Your task to perform on an android device: Clear the shopping cart on target. Search for alienware aurora on target, select the first entry, add it to the cart, then select checkout. Image 0: 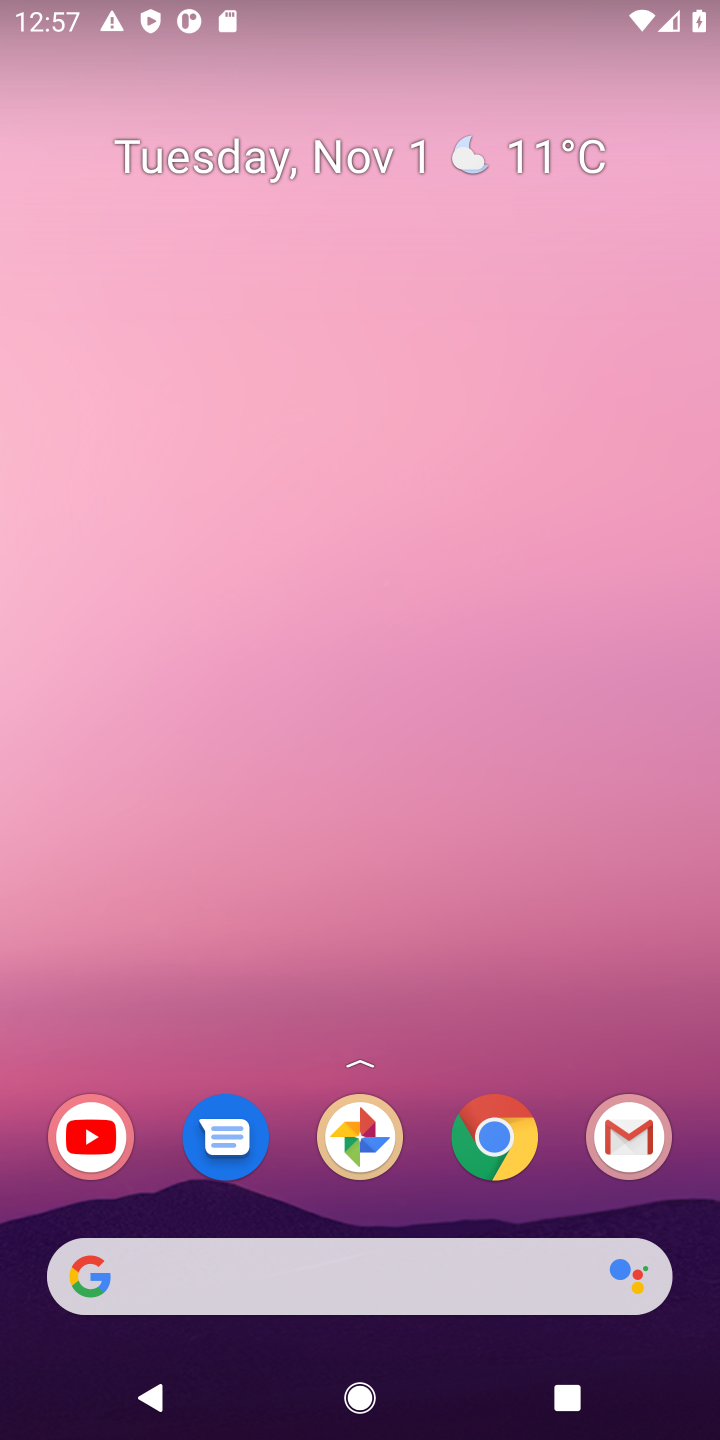
Step 0: click (490, 1127)
Your task to perform on an android device: Clear the shopping cart on target. Search for alienware aurora on target, select the first entry, add it to the cart, then select checkout. Image 1: 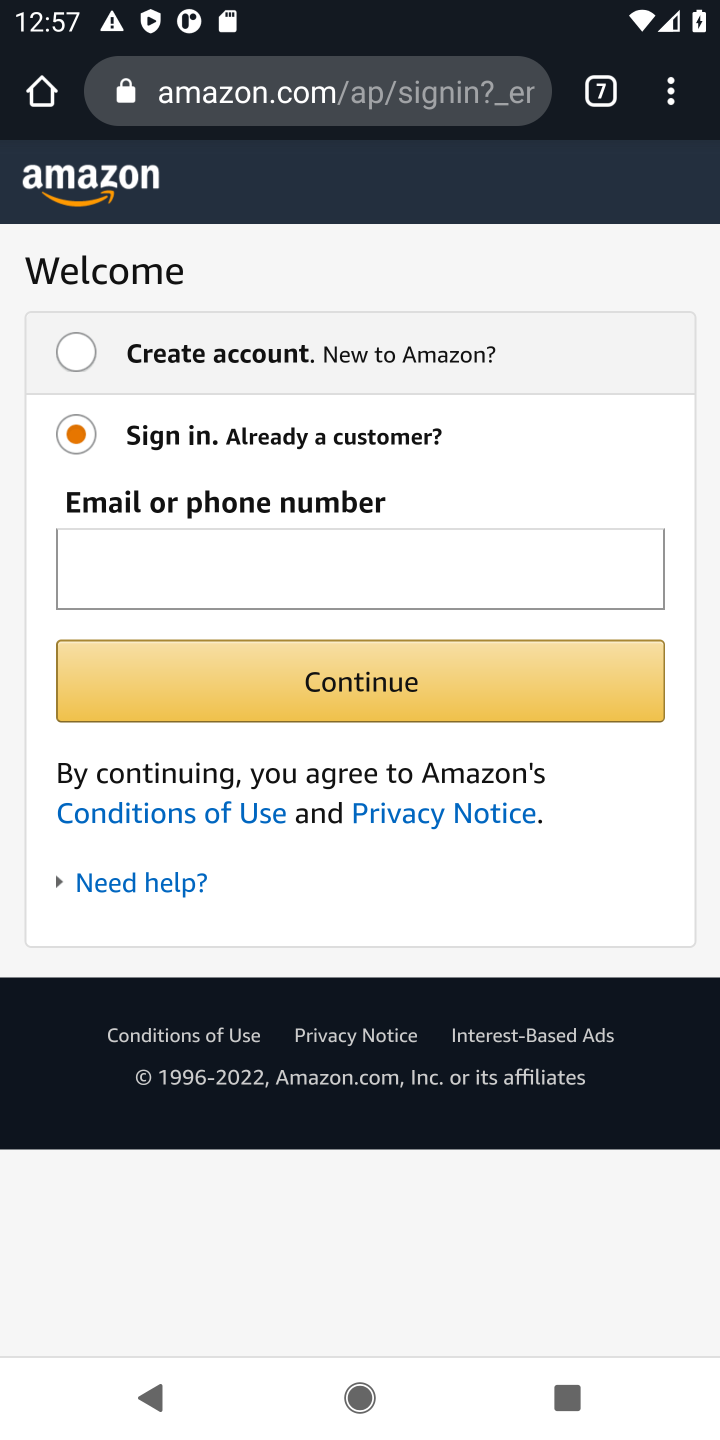
Step 1: click (600, 95)
Your task to perform on an android device: Clear the shopping cart on target. Search for alienware aurora on target, select the first entry, add it to the cart, then select checkout. Image 2: 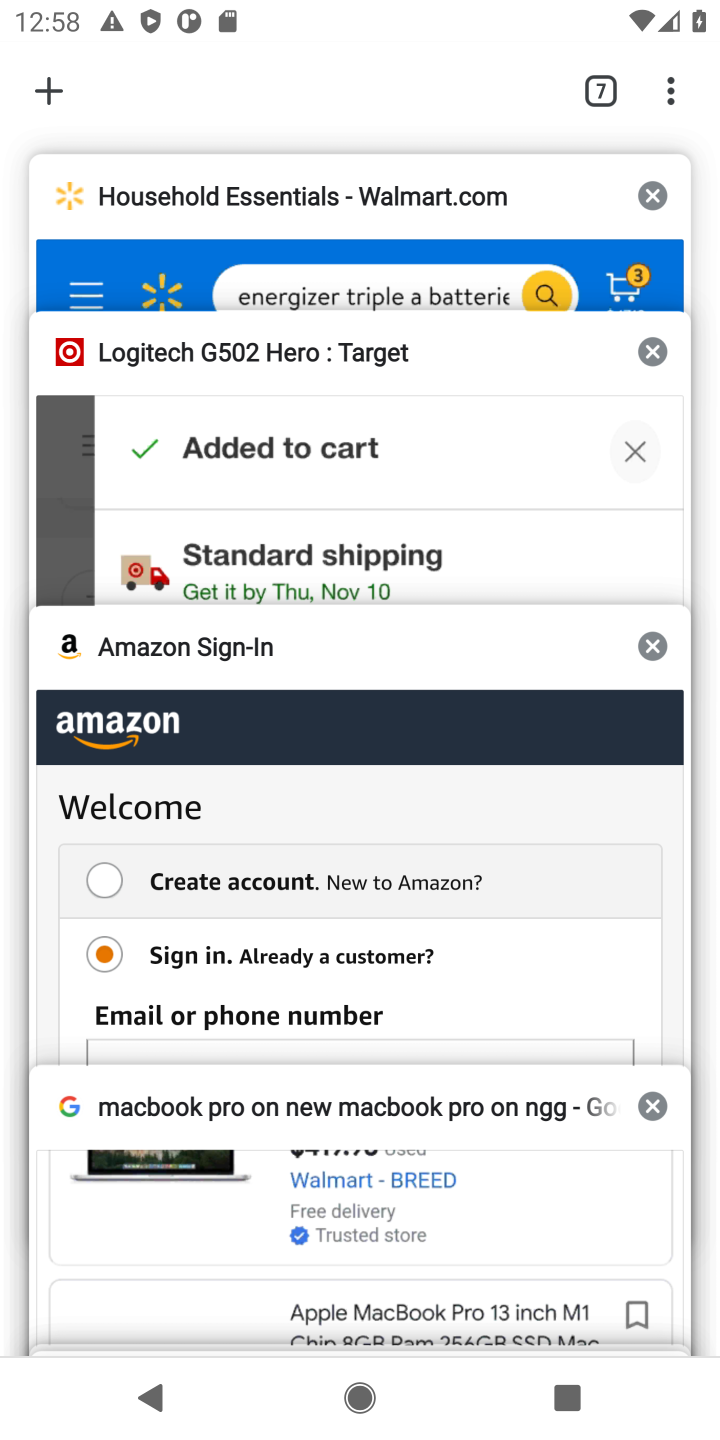
Step 2: click (298, 418)
Your task to perform on an android device: Clear the shopping cart on target. Search for alienware aurora on target, select the first entry, add it to the cart, then select checkout. Image 3: 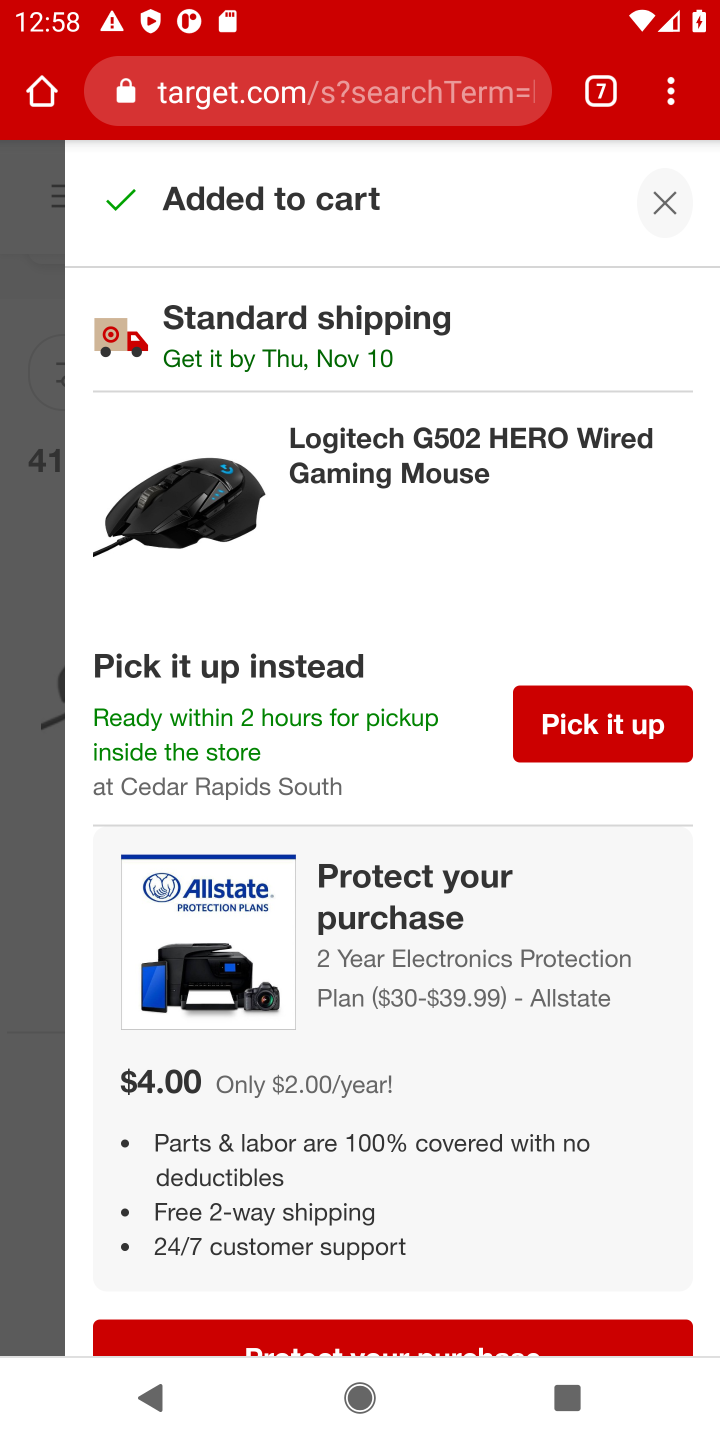
Step 3: click (665, 200)
Your task to perform on an android device: Clear the shopping cart on target. Search for alienware aurora on target, select the first entry, add it to the cart, then select checkout. Image 4: 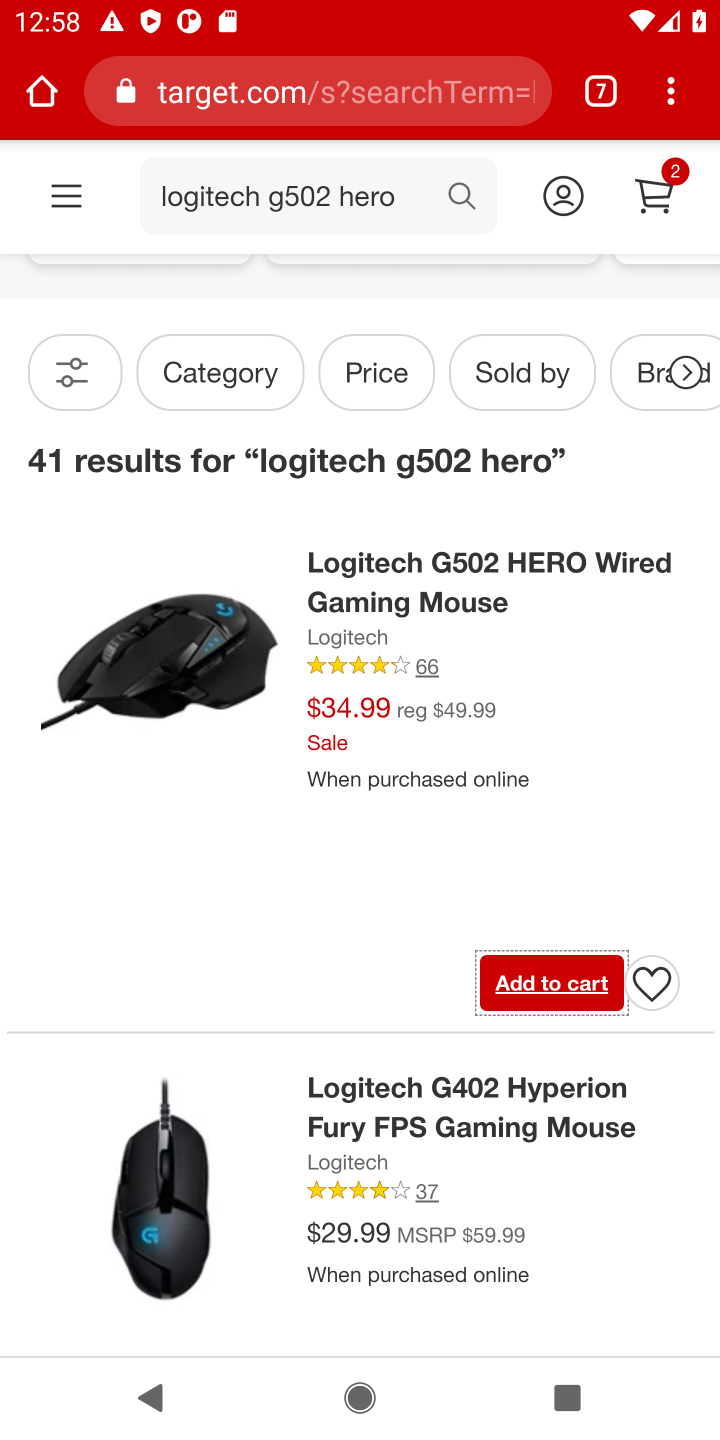
Step 4: click (456, 202)
Your task to perform on an android device: Clear the shopping cart on target. Search for alienware aurora on target, select the first entry, add it to the cart, then select checkout. Image 5: 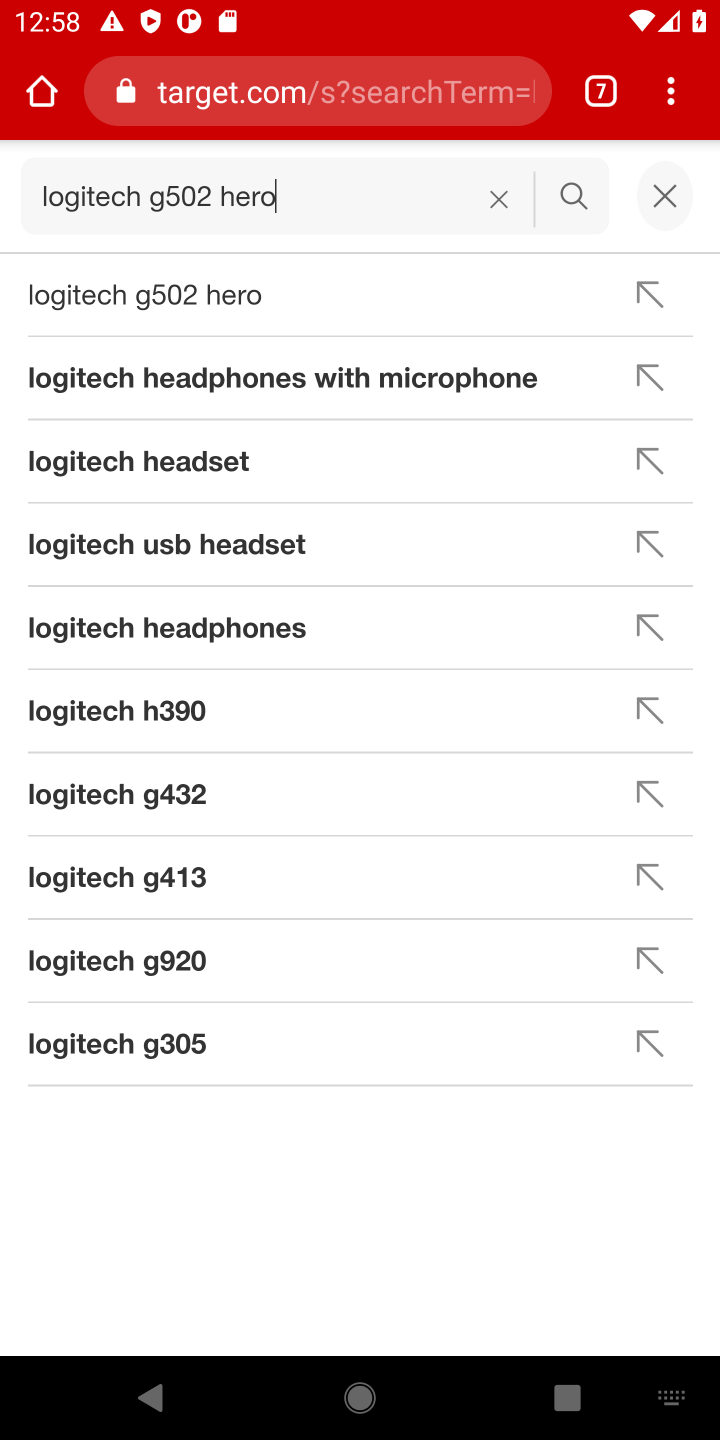
Step 5: click (492, 195)
Your task to perform on an android device: Clear the shopping cart on target. Search for alienware aurora on target, select the first entry, add it to the cart, then select checkout. Image 6: 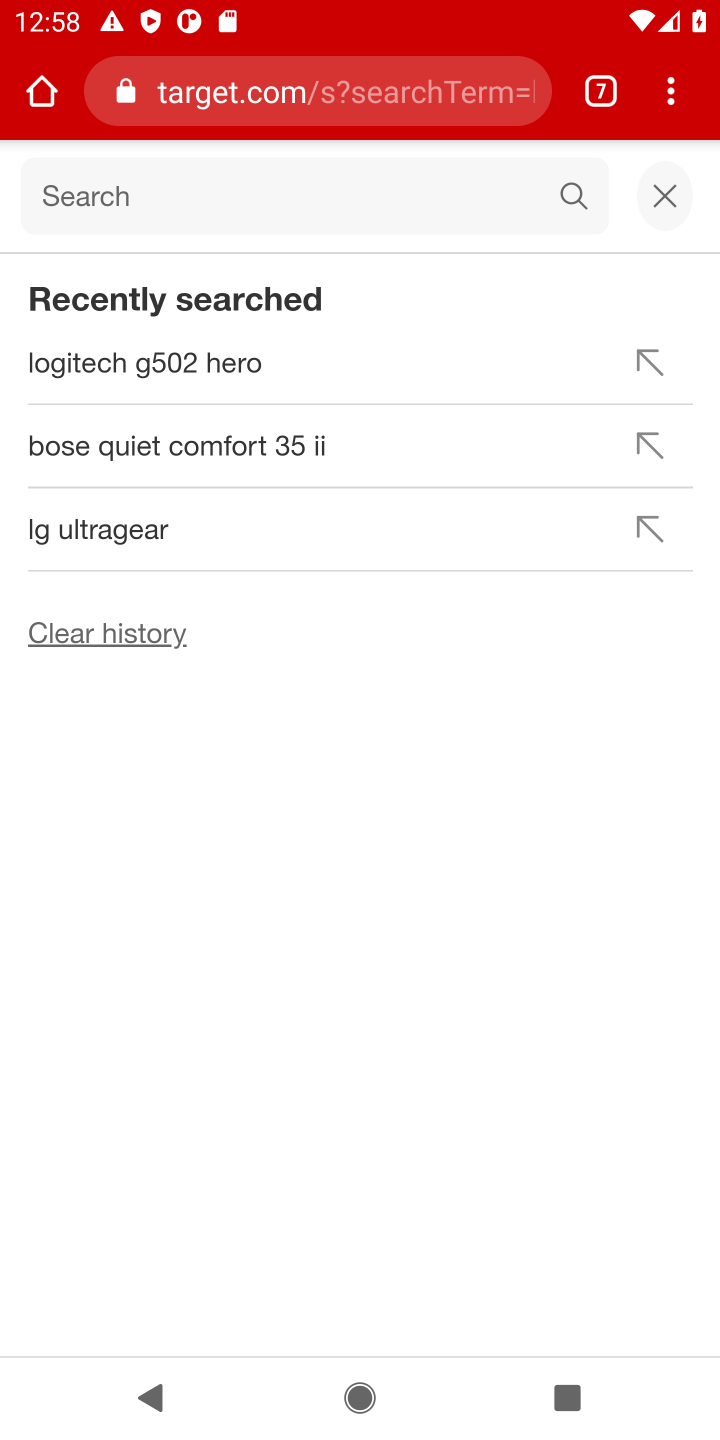
Step 6: type "alienware aurora"
Your task to perform on an android device: Clear the shopping cart on target. Search for alienware aurora on target, select the first entry, add it to the cart, then select checkout. Image 7: 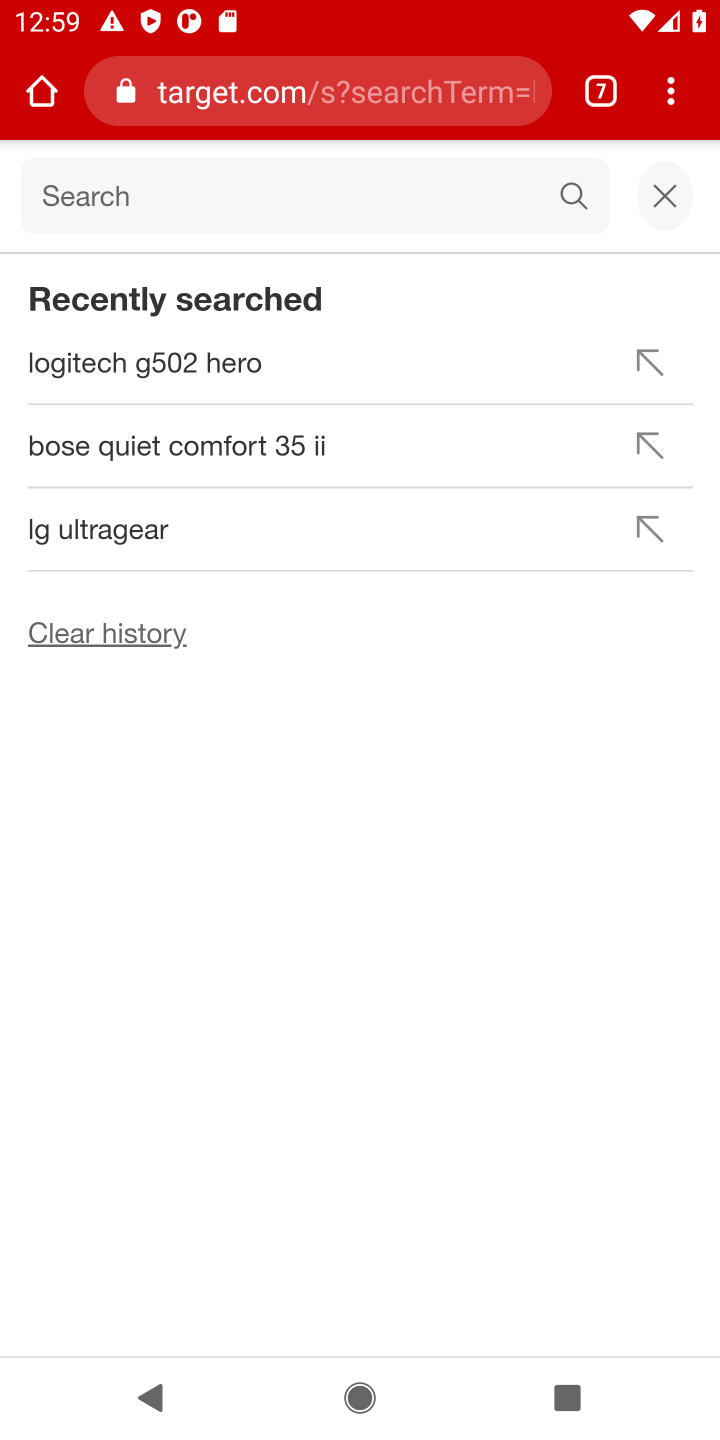
Step 7: click (485, 196)
Your task to perform on an android device: Clear the shopping cart on target. Search for alienware aurora on target, select the first entry, add it to the cart, then select checkout. Image 8: 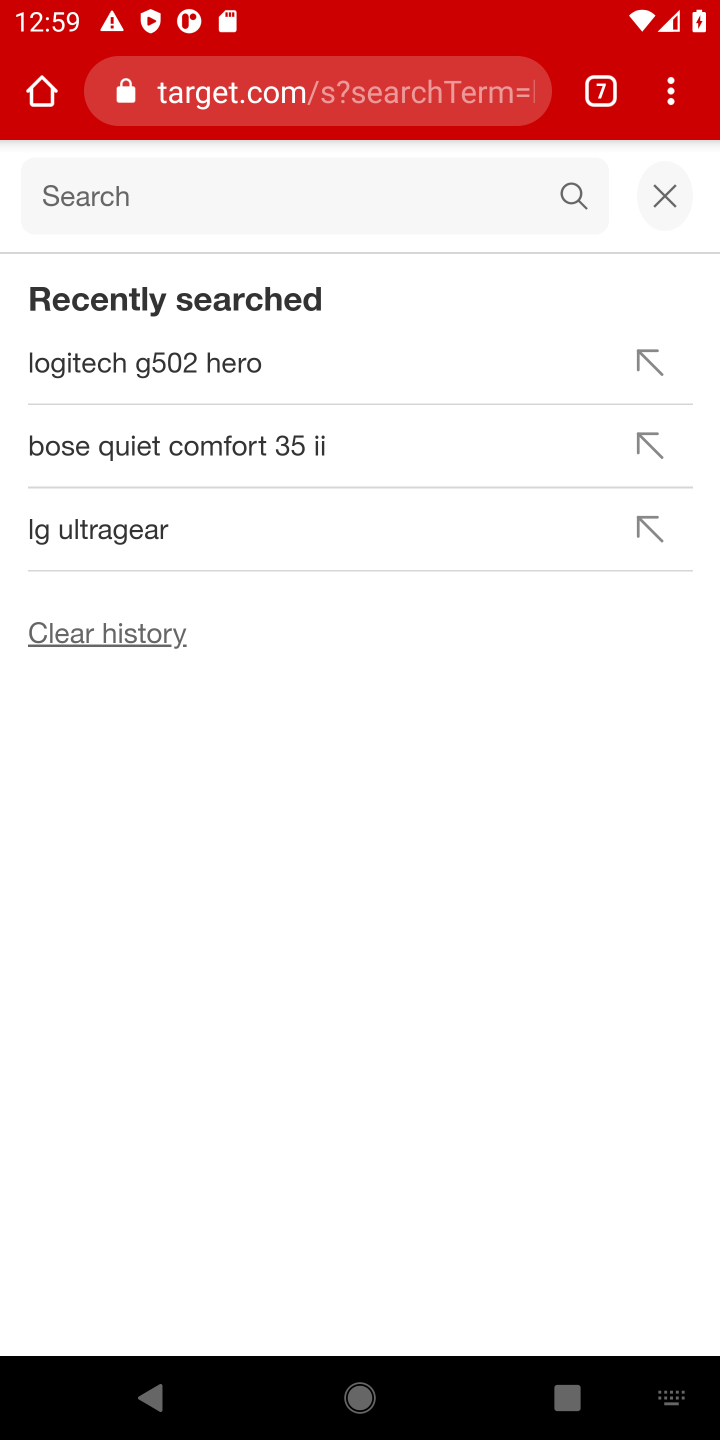
Step 8: click (323, 213)
Your task to perform on an android device: Clear the shopping cart on target. Search for alienware aurora on target, select the first entry, add it to the cart, then select checkout. Image 9: 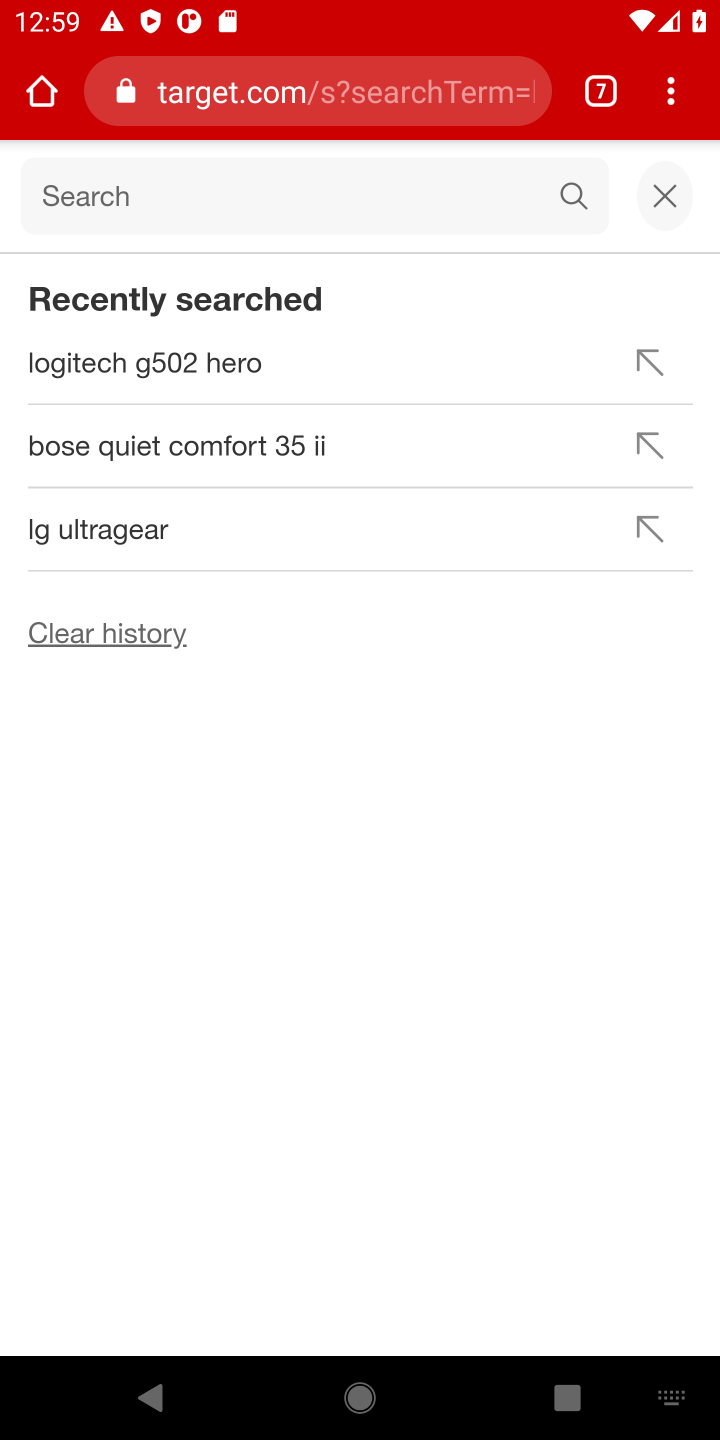
Step 9: type "alienware aurora"
Your task to perform on an android device: Clear the shopping cart on target. Search for alienware aurora on target, select the first entry, add it to the cart, then select checkout. Image 10: 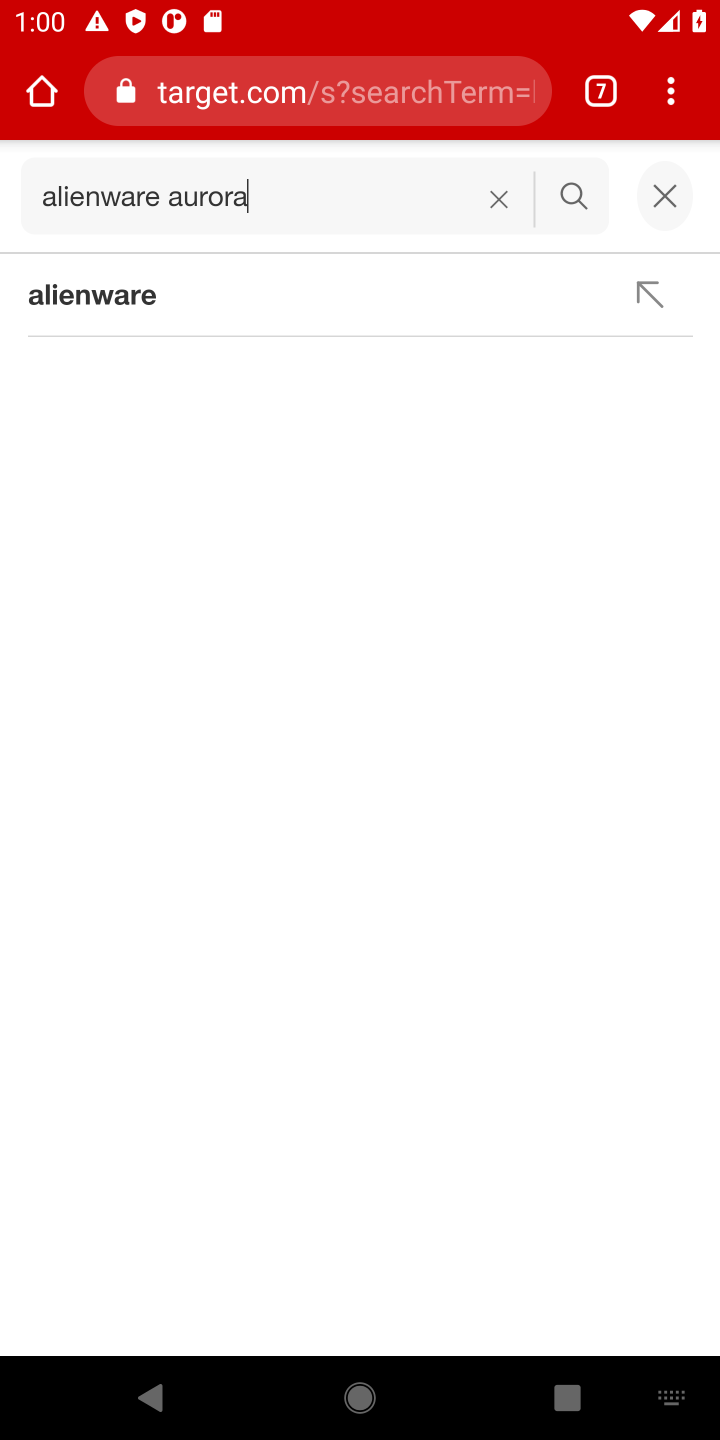
Step 10: click (77, 296)
Your task to perform on an android device: Clear the shopping cart on target. Search for alienware aurora on target, select the first entry, add it to the cart, then select checkout. Image 11: 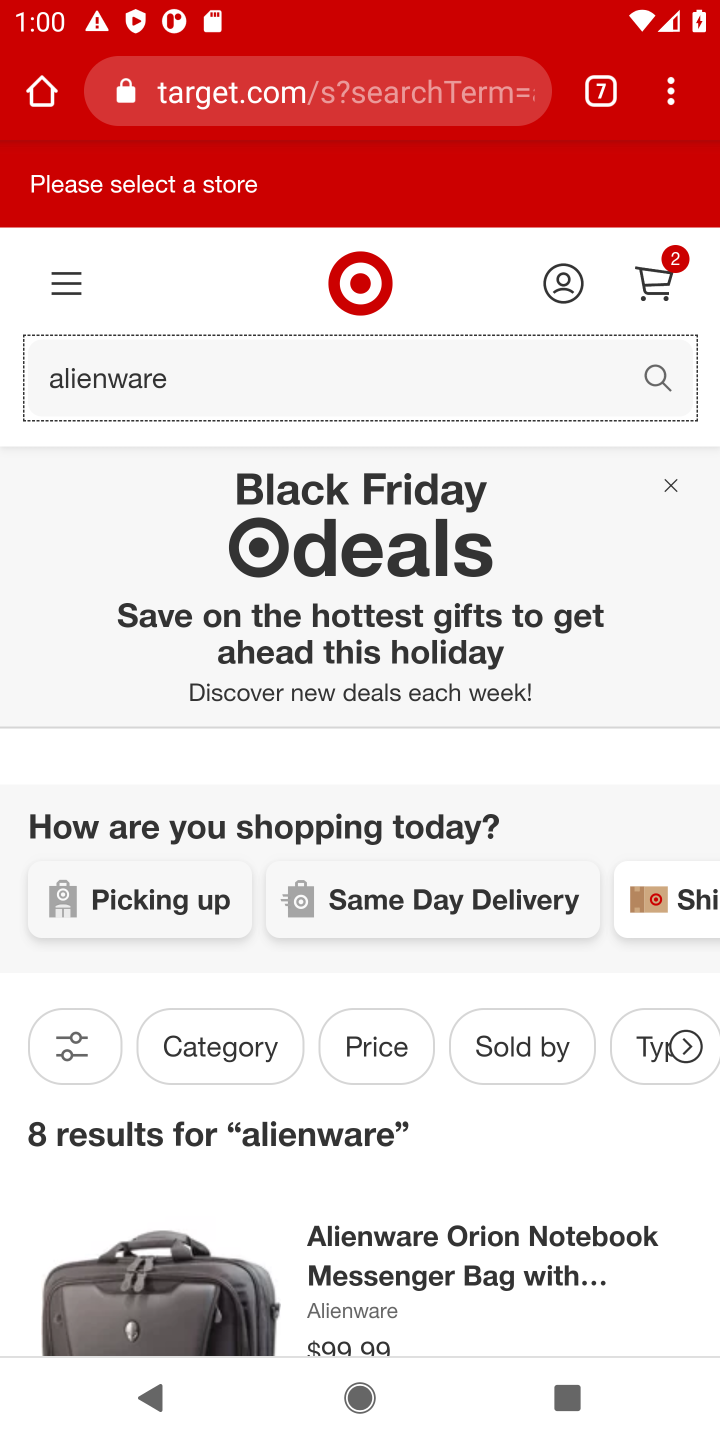
Step 11: click (495, 1256)
Your task to perform on an android device: Clear the shopping cart on target. Search for alienware aurora on target, select the first entry, add it to the cart, then select checkout. Image 12: 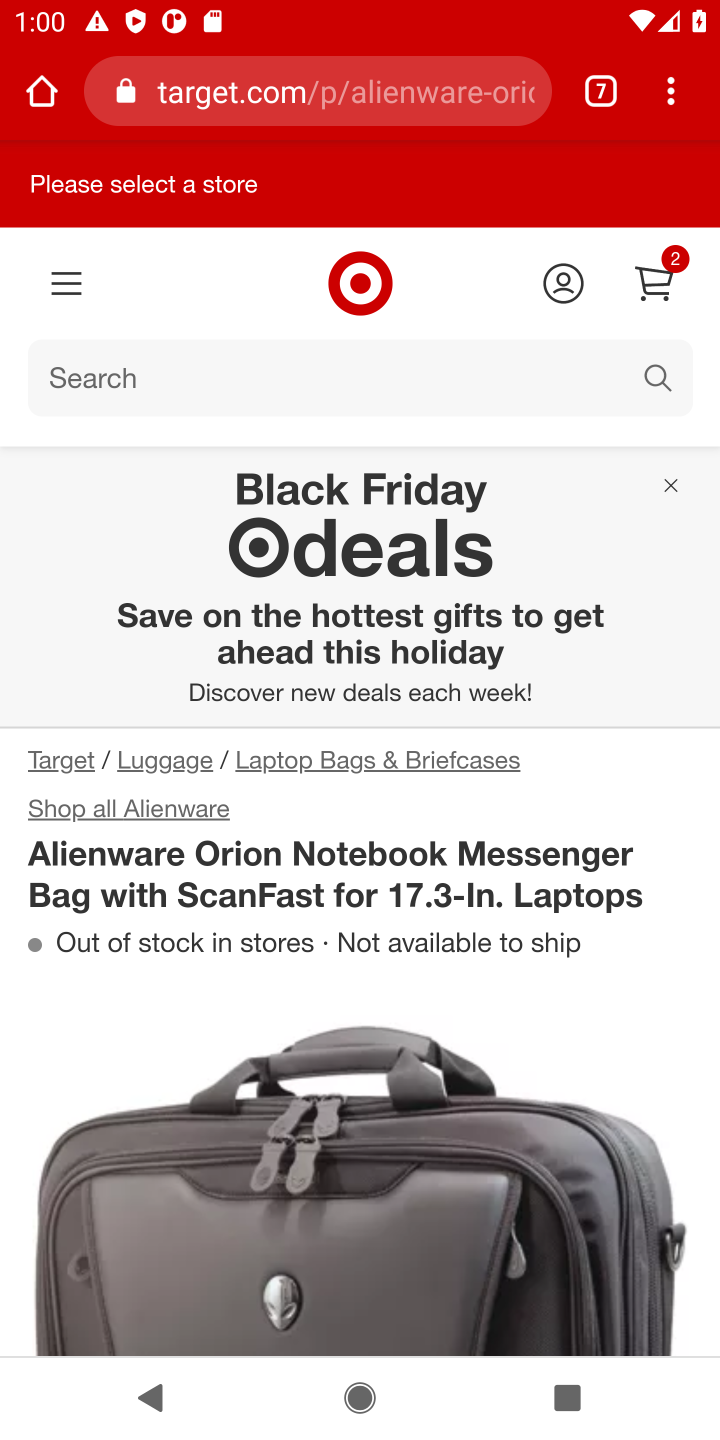
Step 12: drag from (535, 1160) to (503, 279)
Your task to perform on an android device: Clear the shopping cart on target. Search for alienware aurora on target, select the first entry, add it to the cart, then select checkout. Image 13: 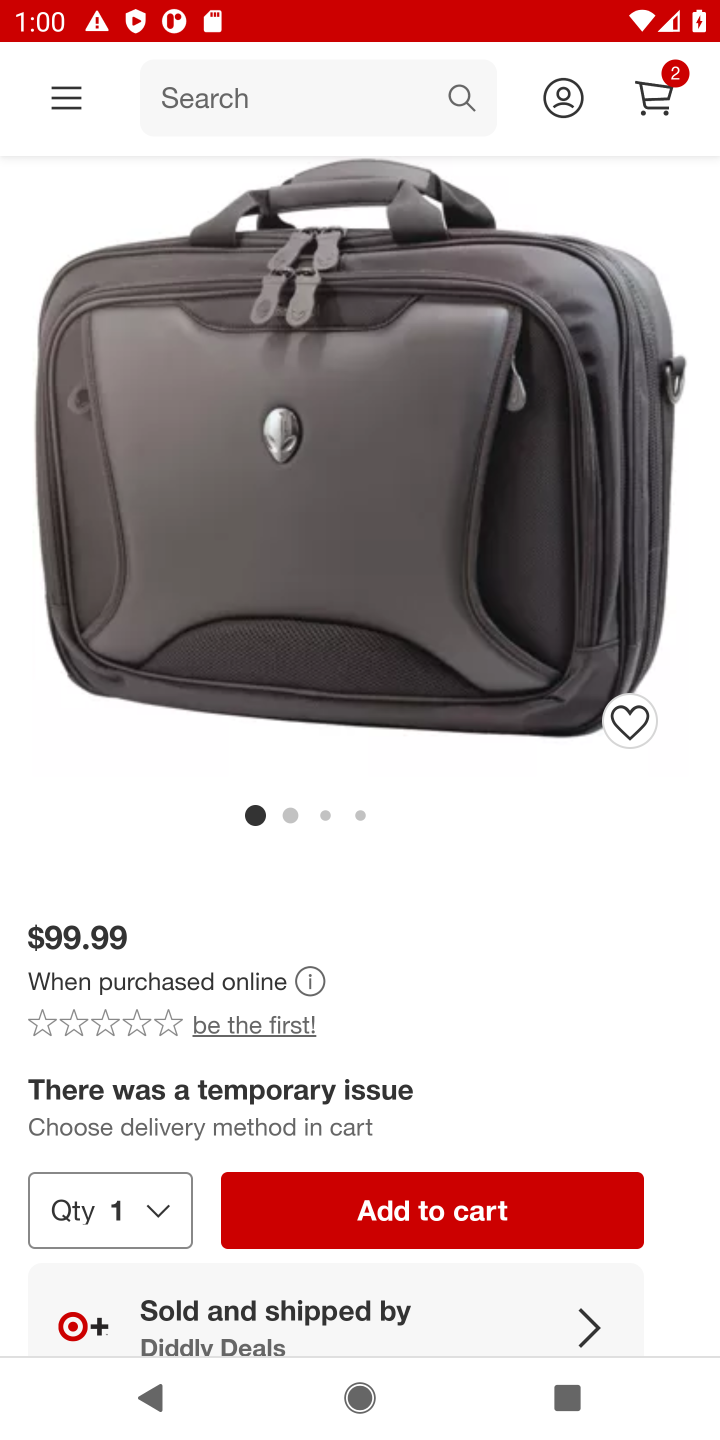
Step 13: drag from (372, 1275) to (528, 456)
Your task to perform on an android device: Clear the shopping cart on target. Search for alienware aurora on target, select the first entry, add it to the cart, then select checkout. Image 14: 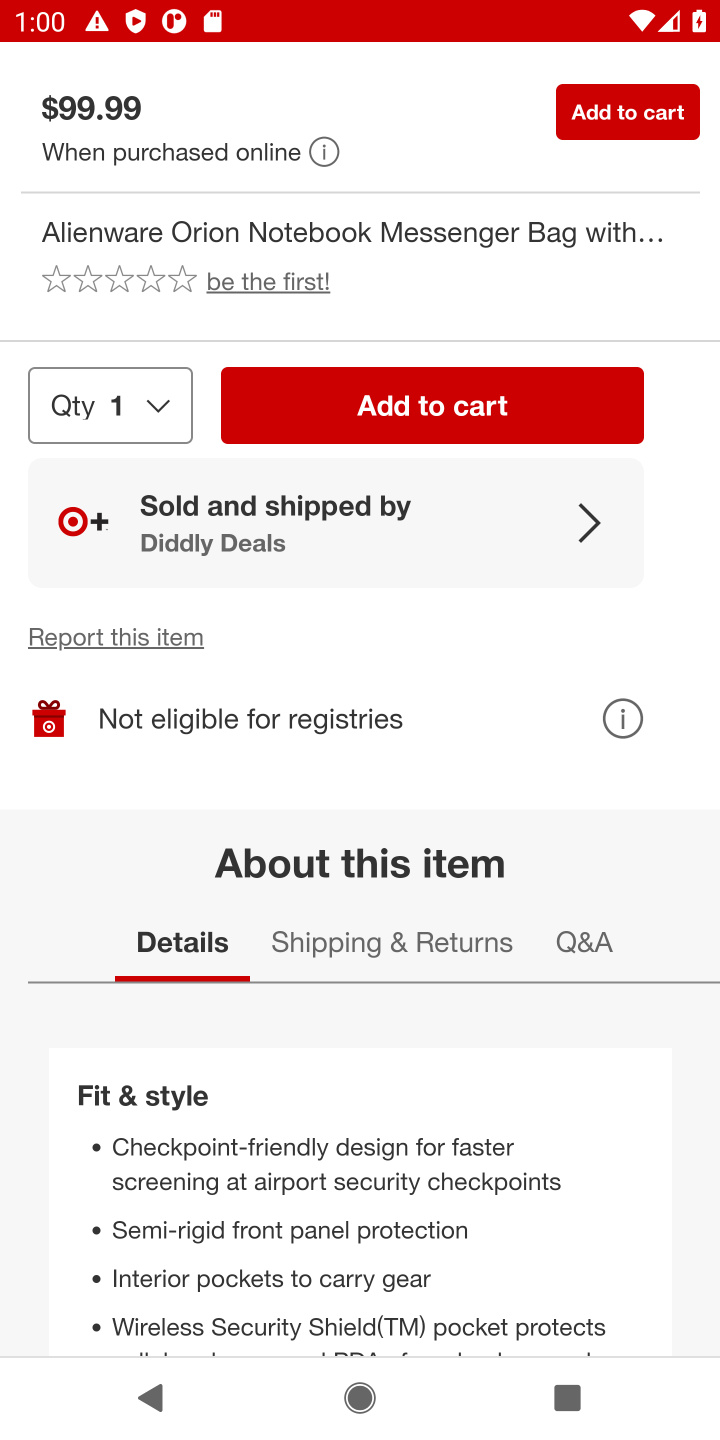
Step 14: click (488, 419)
Your task to perform on an android device: Clear the shopping cart on target. Search for alienware aurora on target, select the first entry, add it to the cart, then select checkout. Image 15: 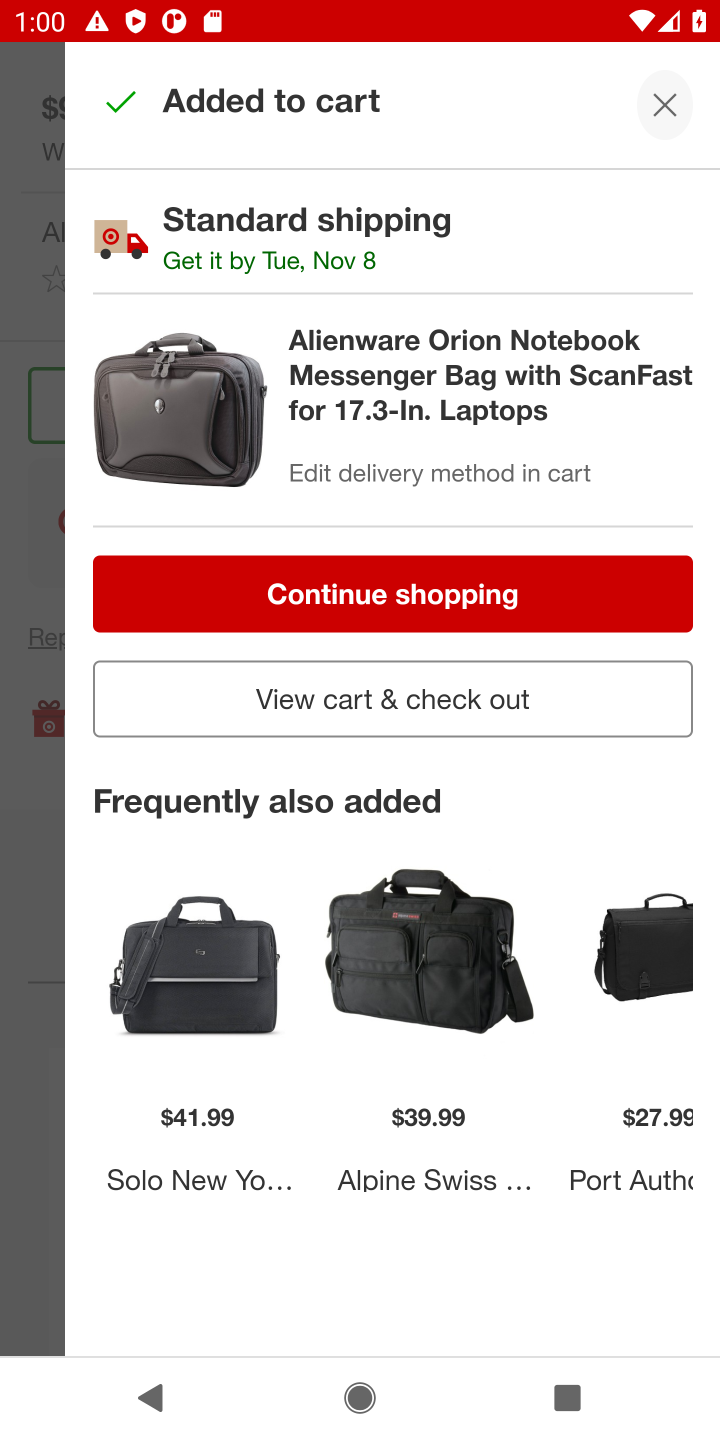
Step 15: task complete